Your task to perform on an android device: change the clock display to show seconds Image 0: 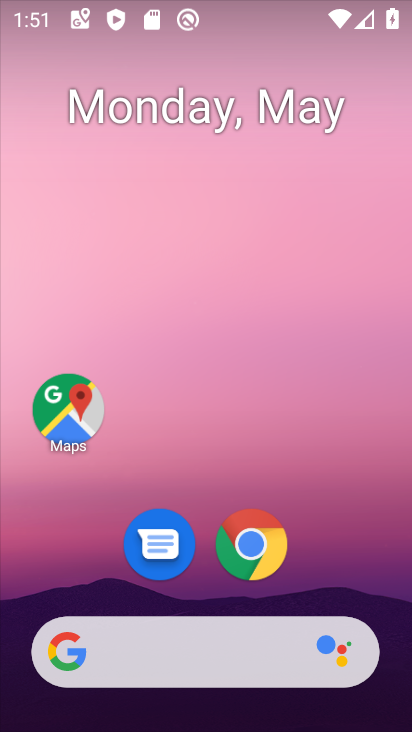
Step 0: drag from (366, 576) to (357, 267)
Your task to perform on an android device: change the clock display to show seconds Image 1: 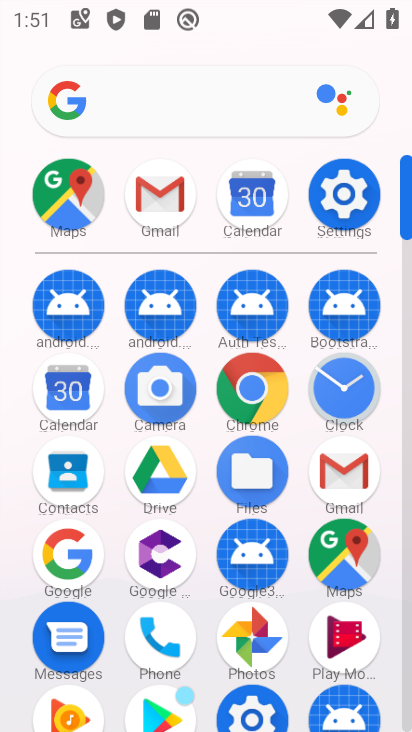
Step 1: click (370, 396)
Your task to perform on an android device: change the clock display to show seconds Image 2: 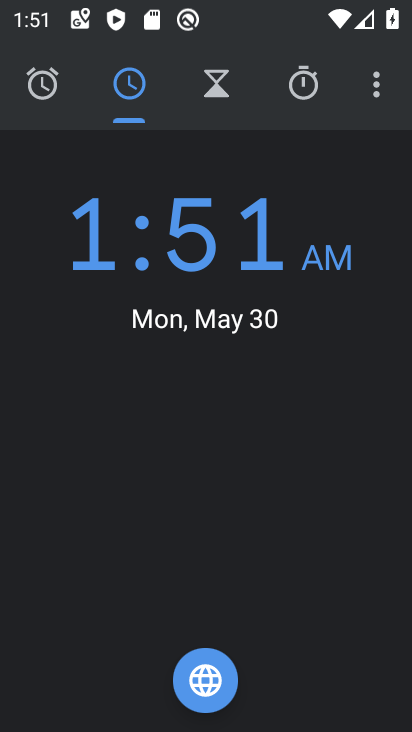
Step 2: click (377, 105)
Your task to perform on an android device: change the clock display to show seconds Image 3: 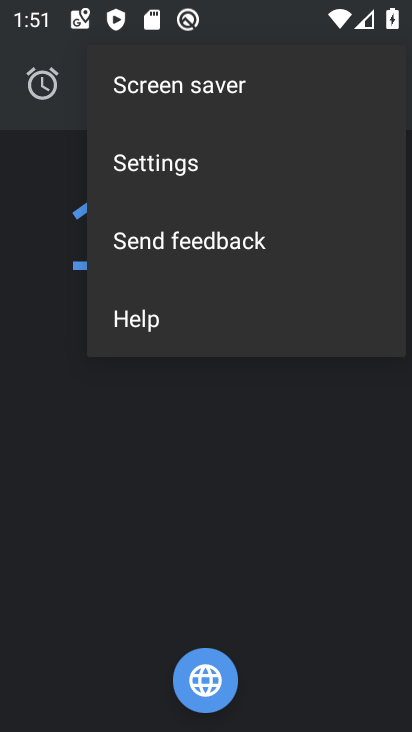
Step 3: click (196, 166)
Your task to perform on an android device: change the clock display to show seconds Image 4: 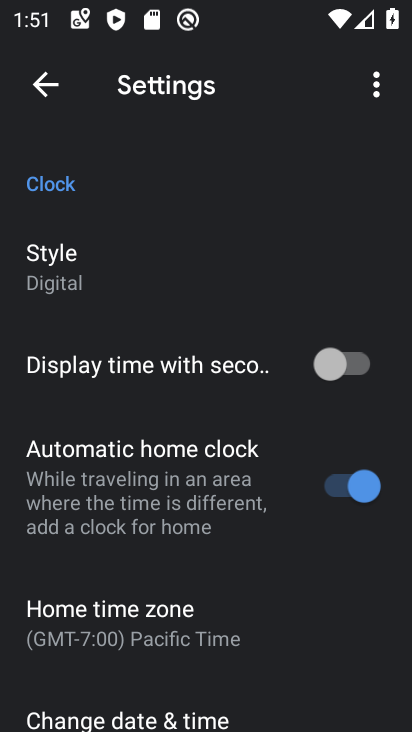
Step 4: drag from (261, 570) to (287, 427)
Your task to perform on an android device: change the clock display to show seconds Image 5: 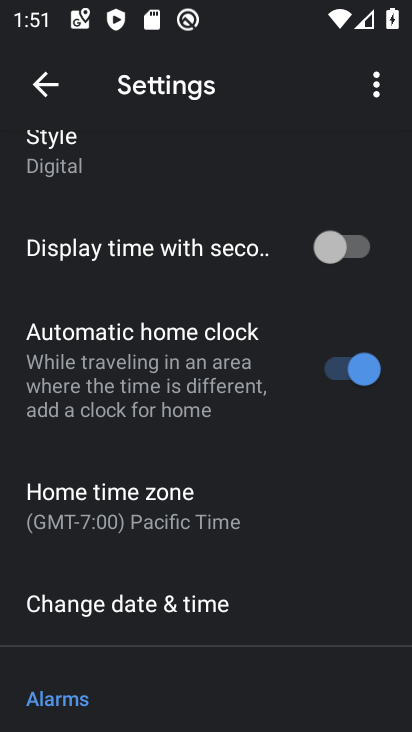
Step 5: drag from (295, 561) to (301, 438)
Your task to perform on an android device: change the clock display to show seconds Image 6: 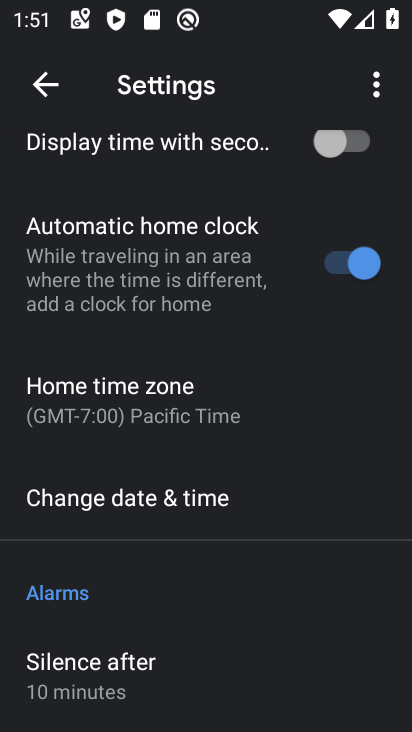
Step 6: drag from (290, 572) to (291, 458)
Your task to perform on an android device: change the clock display to show seconds Image 7: 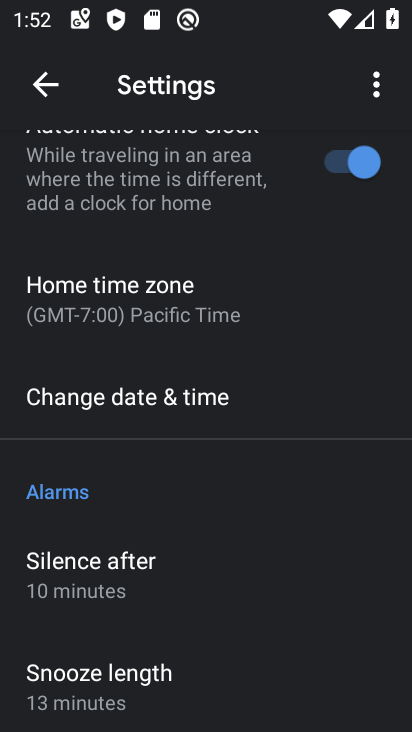
Step 7: drag from (265, 580) to (275, 488)
Your task to perform on an android device: change the clock display to show seconds Image 8: 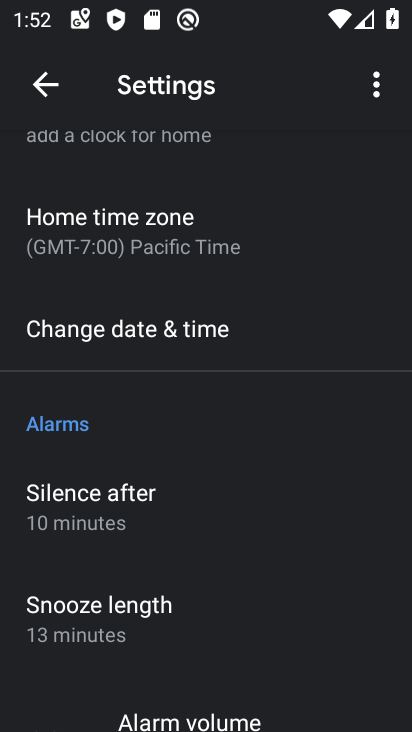
Step 8: drag from (270, 584) to (272, 492)
Your task to perform on an android device: change the clock display to show seconds Image 9: 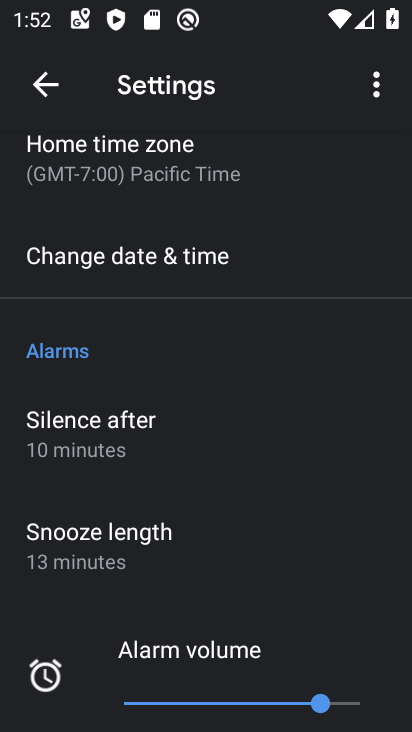
Step 9: drag from (285, 613) to (294, 478)
Your task to perform on an android device: change the clock display to show seconds Image 10: 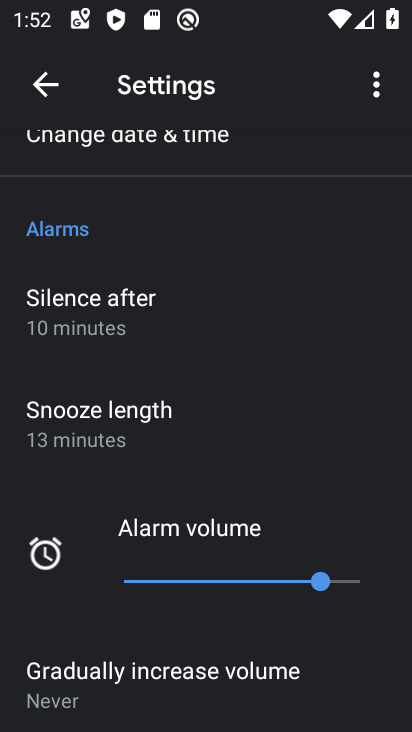
Step 10: drag from (277, 601) to (296, 488)
Your task to perform on an android device: change the clock display to show seconds Image 11: 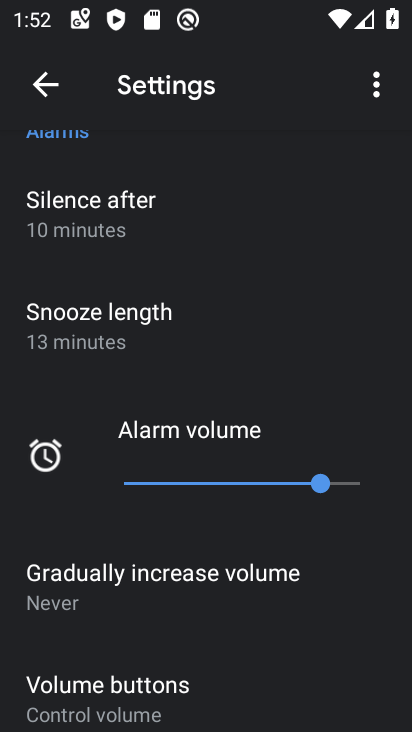
Step 11: drag from (303, 608) to (302, 486)
Your task to perform on an android device: change the clock display to show seconds Image 12: 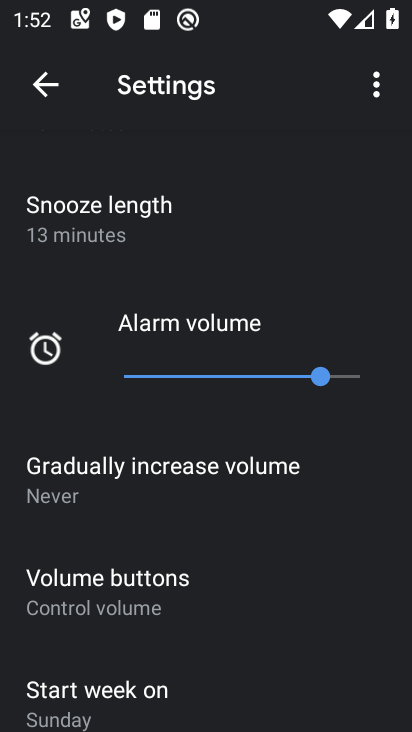
Step 12: drag from (287, 632) to (279, 510)
Your task to perform on an android device: change the clock display to show seconds Image 13: 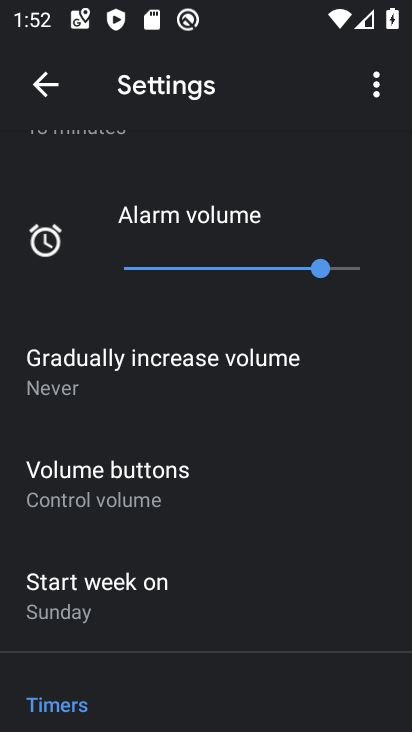
Step 13: drag from (264, 665) to (264, 542)
Your task to perform on an android device: change the clock display to show seconds Image 14: 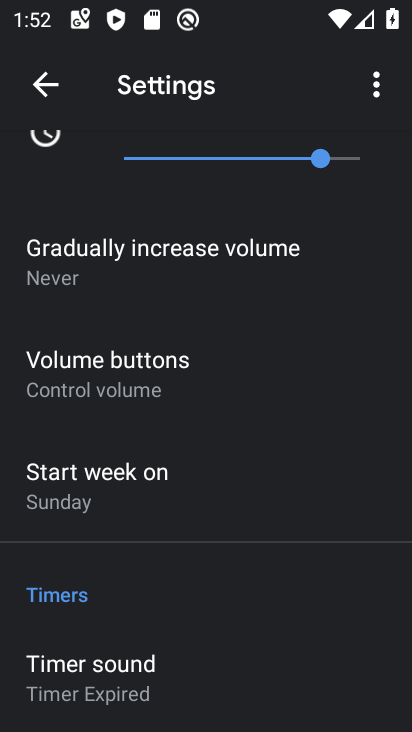
Step 14: drag from (270, 668) to (277, 513)
Your task to perform on an android device: change the clock display to show seconds Image 15: 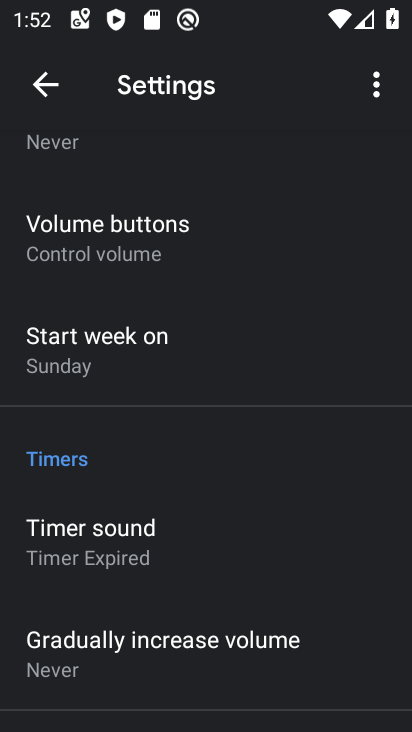
Step 15: drag from (288, 669) to (301, 339)
Your task to perform on an android device: change the clock display to show seconds Image 16: 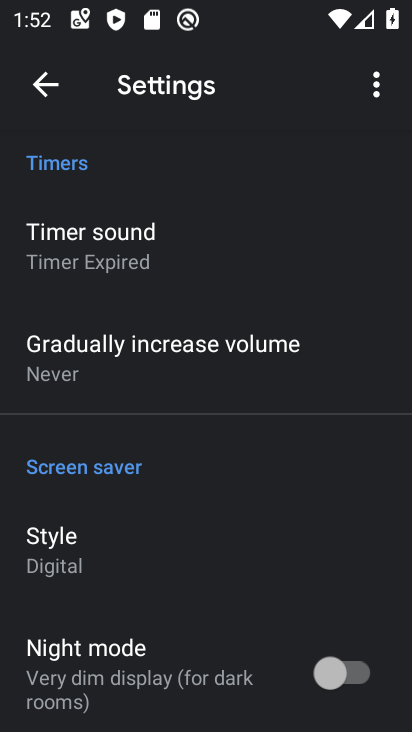
Step 16: drag from (329, 315) to (346, 449)
Your task to perform on an android device: change the clock display to show seconds Image 17: 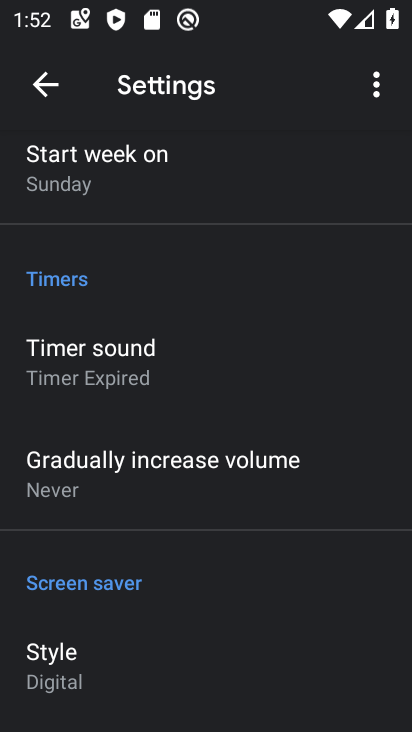
Step 17: drag from (320, 304) to (325, 445)
Your task to perform on an android device: change the clock display to show seconds Image 18: 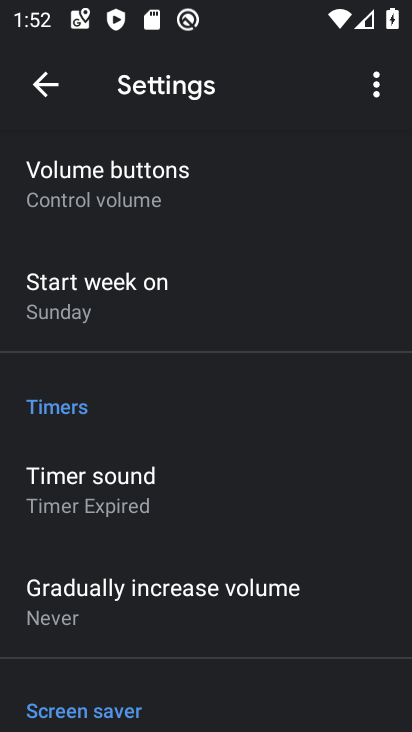
Step 18: drag from (314, 319) to (321, 440)
Your task to perform on an android device: change the clock display to show seconds Image 19: 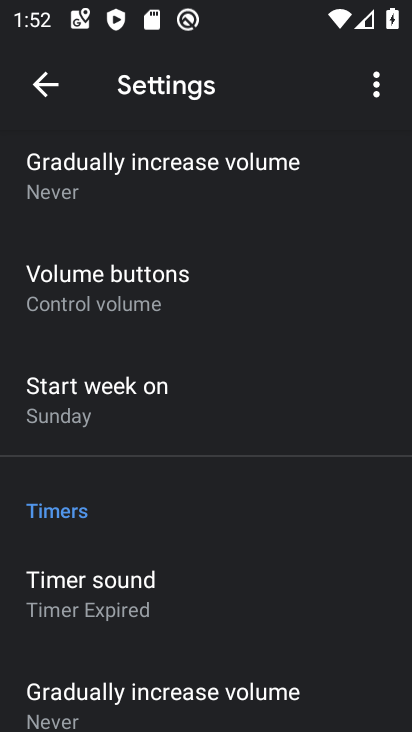
Step 19: drag from (326, 316) to (328, 428)
Your task to perform on an android device: change the clock display to show seconds Image 20: 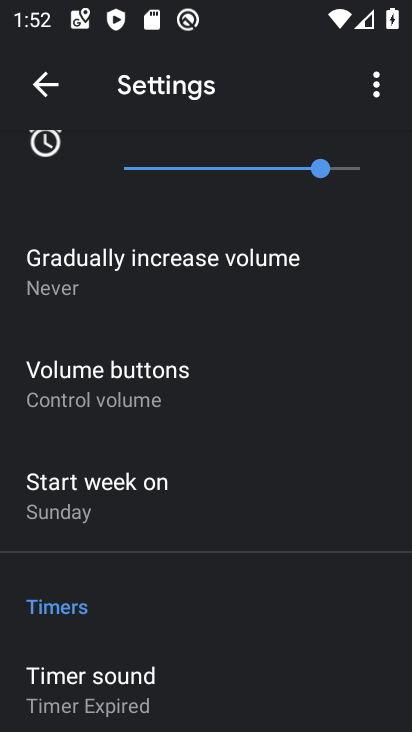
Step 20: drag from (331, 283) to (340, 424)
Your task to perform on an android device: change the clock display to show seconds Image 21: 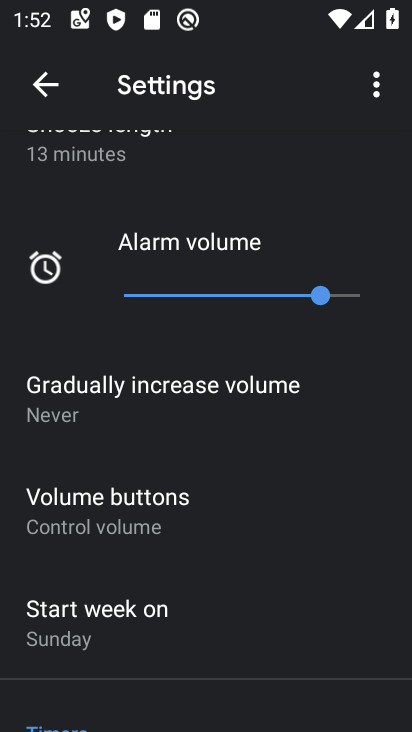
Step 21: drag from (339, 245) to (355, 376)
Your task to perform on an android device: change the clock display to show seconds Image 22: 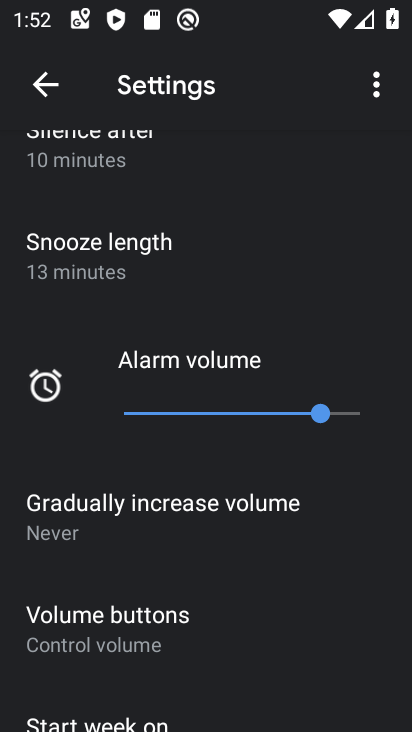
Step 22: drag from (363, 270) to (367, 395)
Your task to perform on an android device: change the clock display to show seconds Image 23: 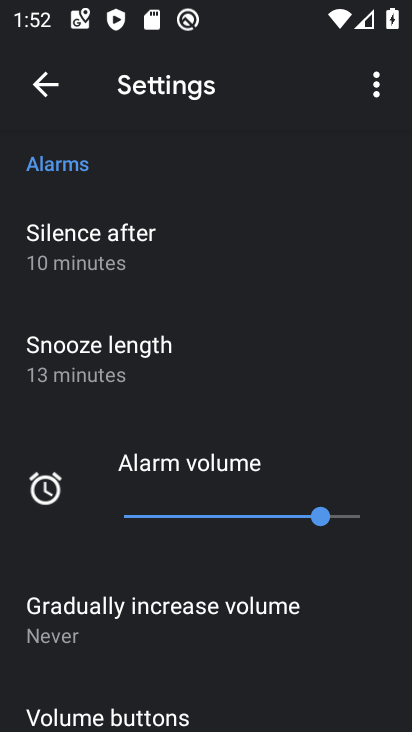
Step 23: drag from (354, 269) to (344, 358)
Your task to perform on an android device: change the clock display to show seconds Image 24: 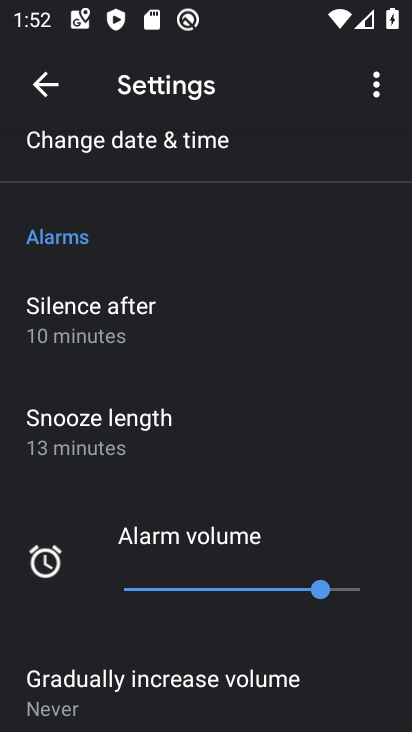
Step 24: drag from (324, 240) to (310, 346)
Your task to perform on an android device: change the clock display to show seconds Image 25: 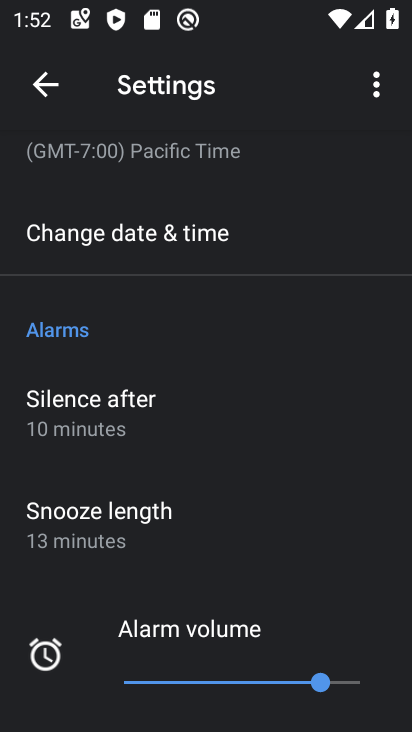
Step 25: drag from (308, 250) to (304, 317)
Your task to perform on an android device: change the clock display to show seconds Image 26: 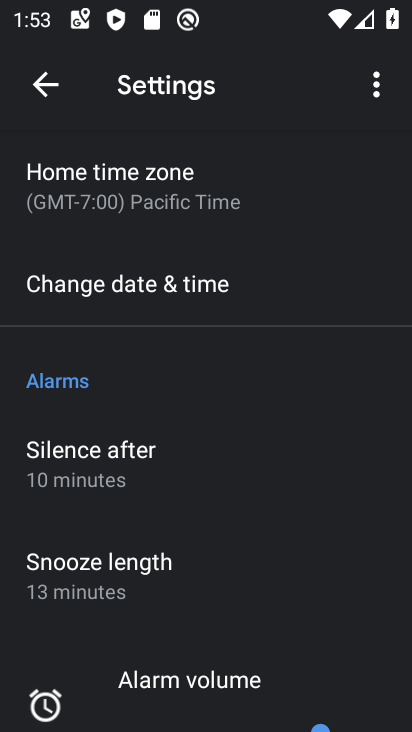
Step 26: drag from (309, 214) to (309, 336)
Your task to perform on an android device: change the clock display to show seconds Image 27: 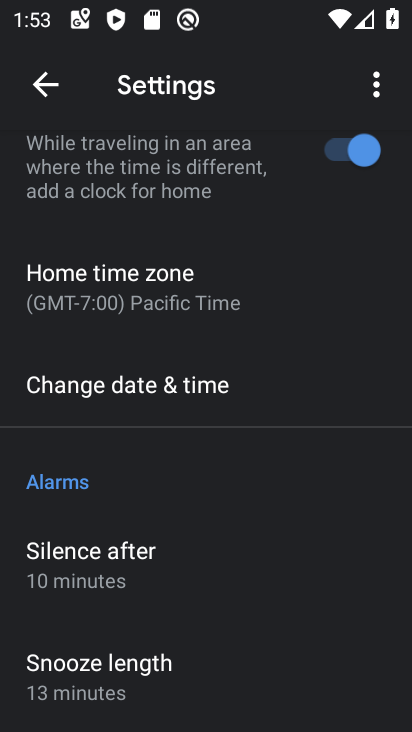
Step 27: drag from (314, 226) to (305, 329)
Your task to perform on an android device: change the clock display to show seconds Image 28: 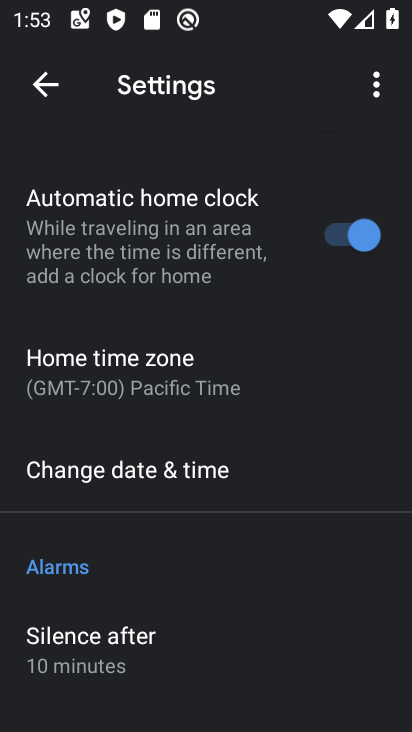
Step 28: drag from (306, 238) to (302, 294)
Your task to perform on an android device: change the clock display to show seconds Image 29: 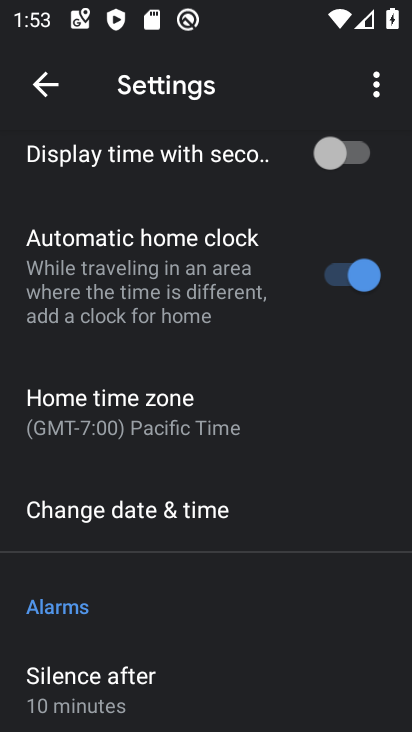
Step 29: drag from (290, 164) to (281, 336)
Your task to perform on an android device: change the clock display to show seconds Image 30: 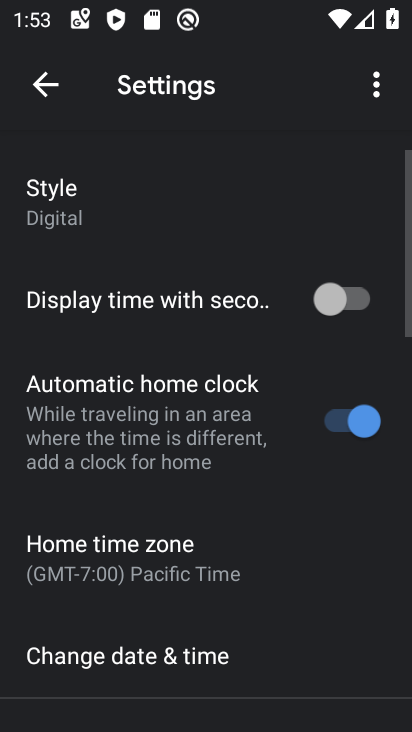
Step 30: click (314, 270)
Your task to perform on an android device: change the clock display to show seconds Image 31: 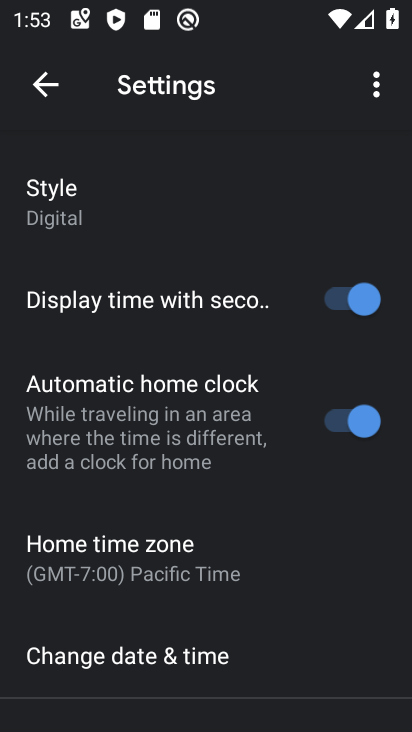
Step 31: task complete